Your task to perform on an android device: toggle priority inbox in the gmail app Image 0: 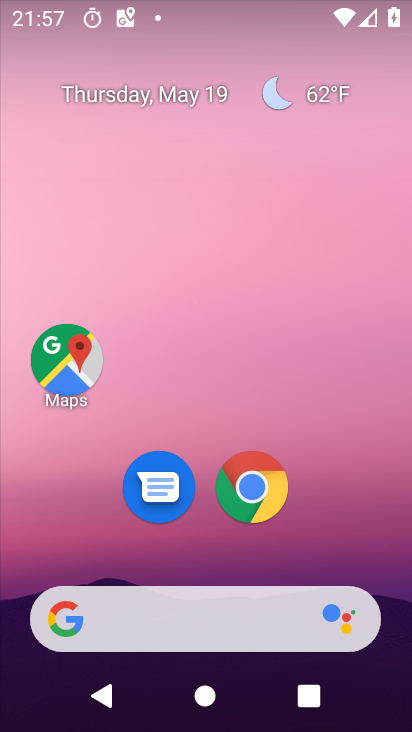
Step 0: drag from (319, 531) to (262, 140)
Your task to perform on an android device: toggle priority inbox in the gmail app Image 1: 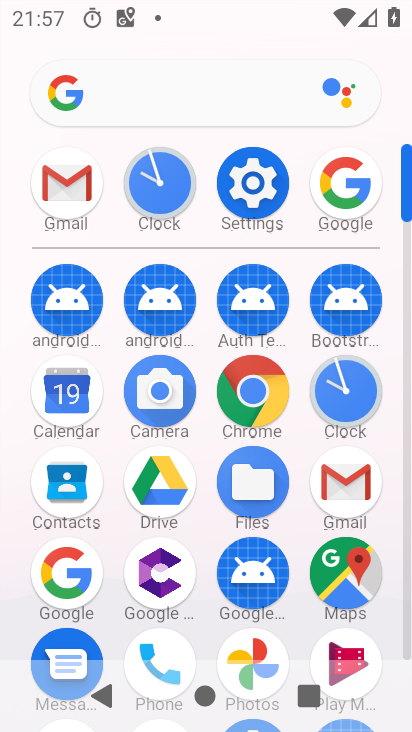
Step 1: click (62, 180)
Your task to perform on an android device: toggle priority inbox in the gmail app Image 2: 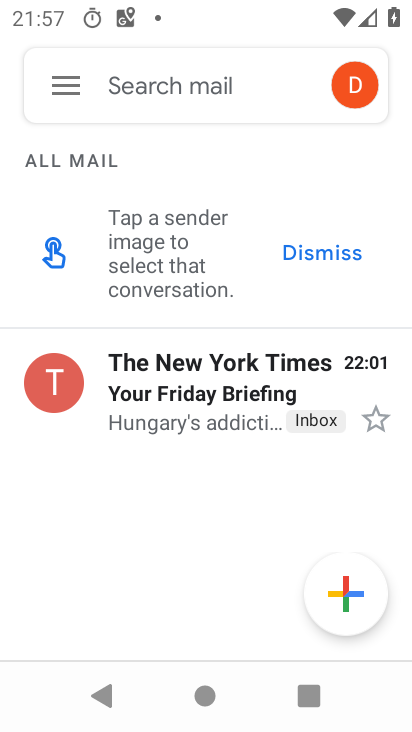
Step 2: click (49, 90)
Your task to perform on an android device: toggle priority inbox in the gmail app Image 3: 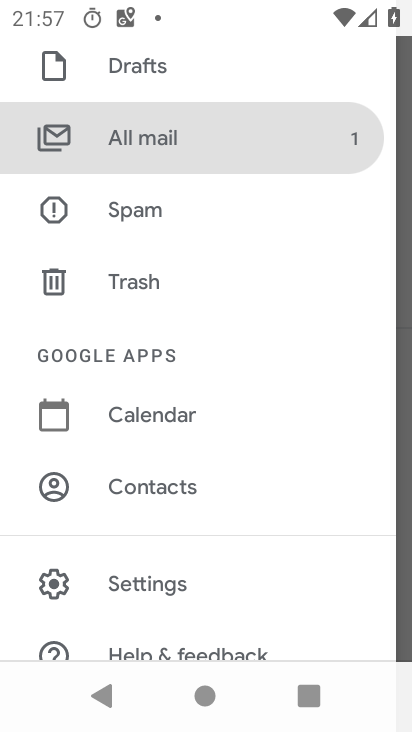
Step 3: click (162, 579)
Your task to perform on an android device: toggle priority inbox in the gmail app Image 4: 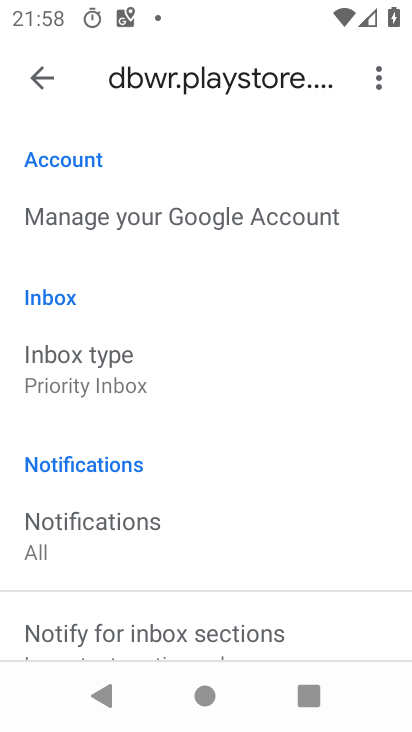
Step 4: click (114, 369)
Your task to perform on an android device: toggle priority inbox in the gmail app Image 5: 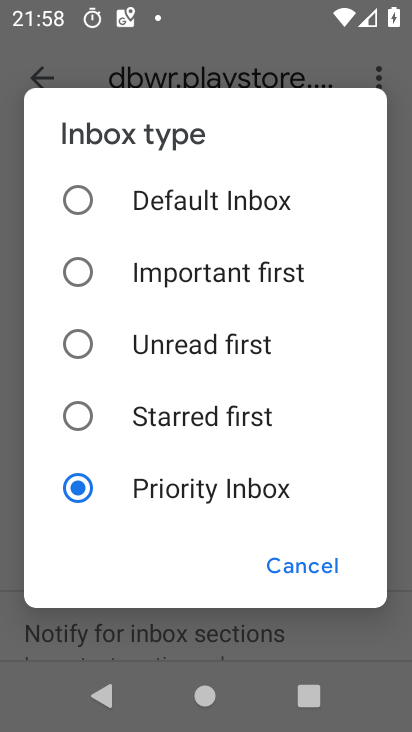
Step 5: click (75, 204)
Your task to perform on an android device: toggle priority inbox in the gmail app Image 6: 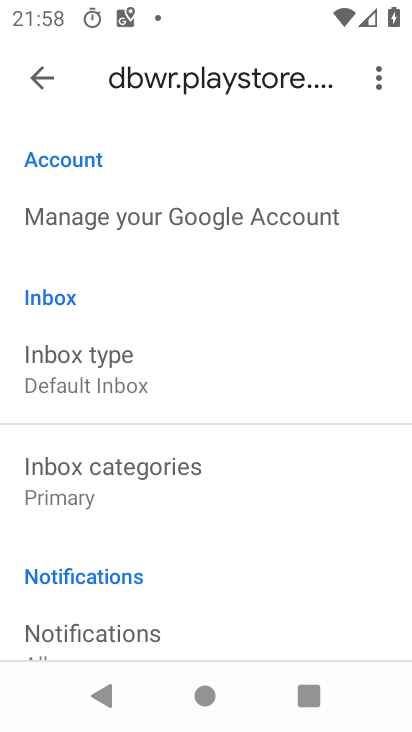
Step 6: task complete